Your task to perform on an android device: Go to Amazon Image 0: 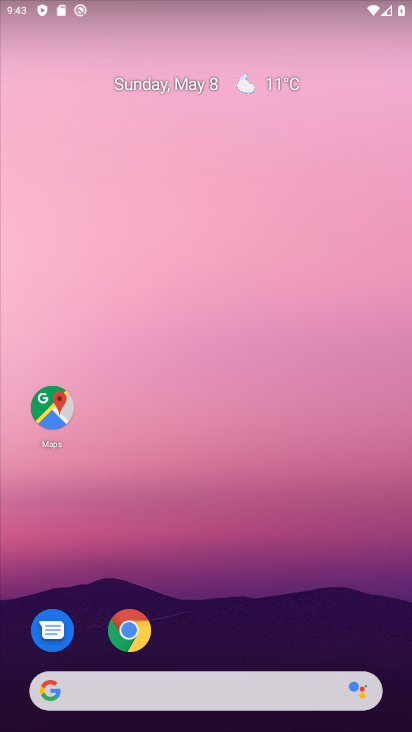
Step 0: drag from (372, 607) to (231, 48)
Your task to perform on an android device: Go to Amazon Image 1: 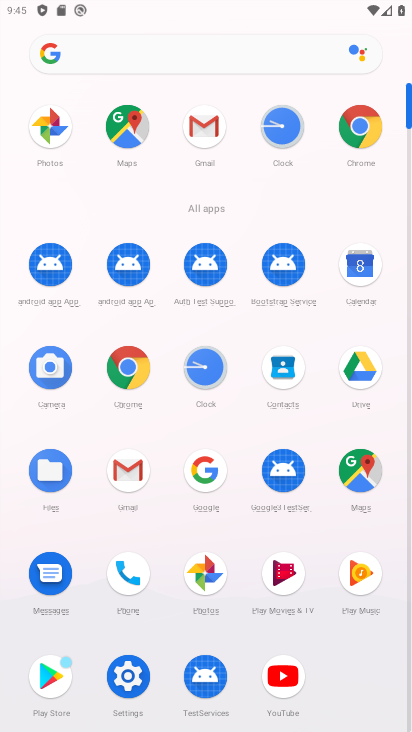
Step 1: click (347, 129)
Your task to perform on an android device: Go to Amazon Image 2: 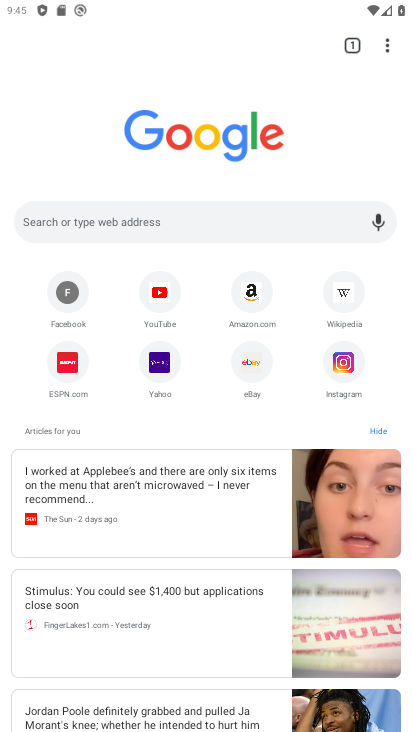
Step 2: click (260, 294)
Your task to perform on an android device: Go to Amazon Image 3: 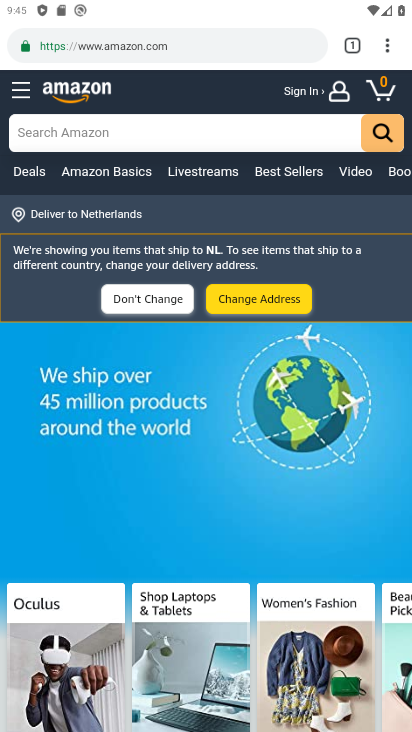
Step 3: task complete